Your task to perform on an android device: Go to display settings Image 0: 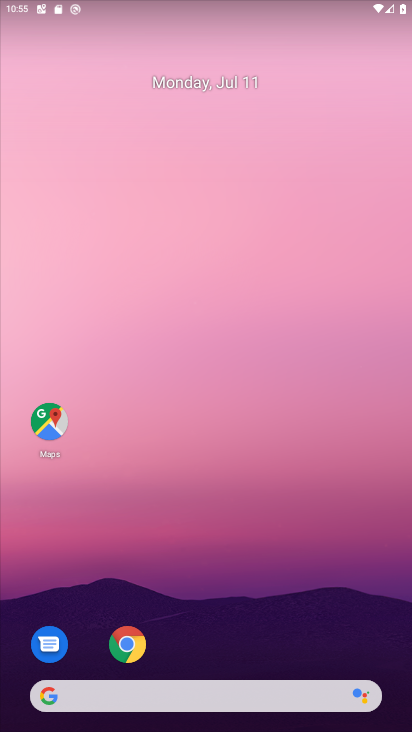
Step 0: drag from (247, 615) to (246, 79)
Your task to perform on an android device: Go to display settings Image 1: 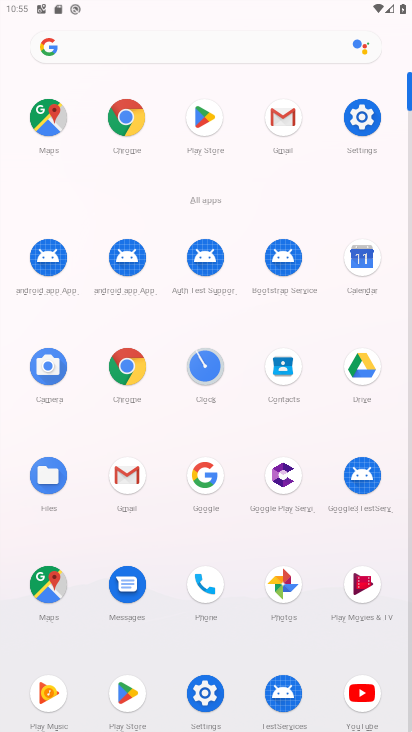
Step 1: click (362, 114)
Your task to perform on an android device: Go to display settings Image 2: 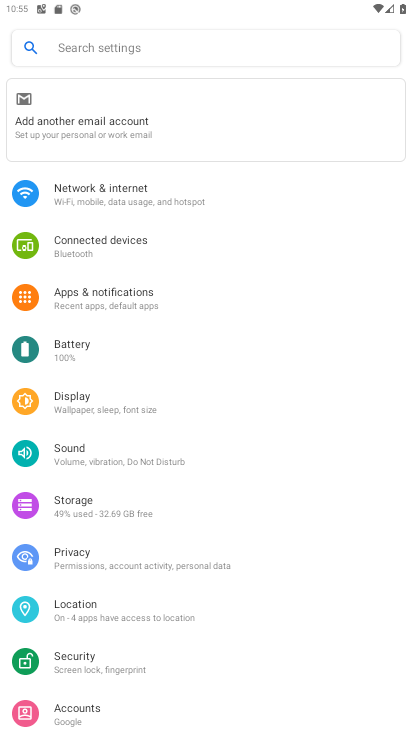
Step 2: click (153, 390)
Your task to perform on an android device: Go to display settings Image 3: 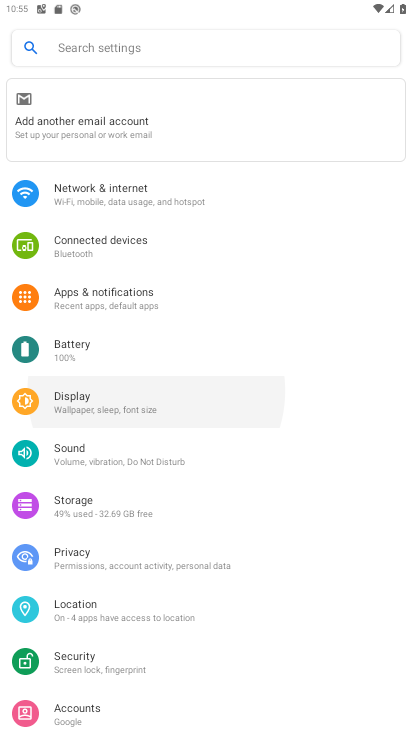
Step 3: click (153, 390)
Your task to perform on an android device: Go to display settings Image 4: 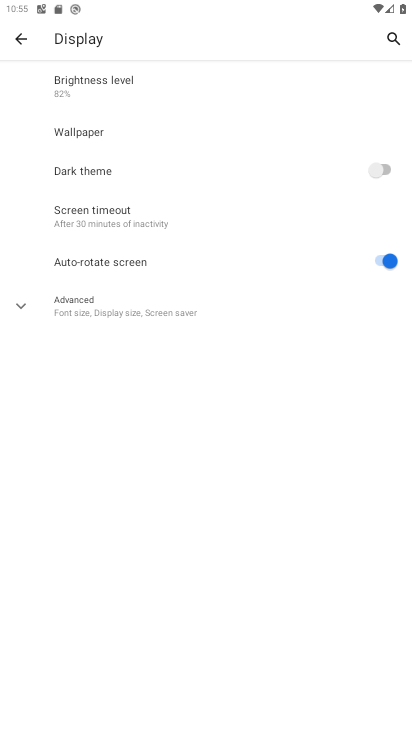
Step 4: task complete